Your task to perform on an android device: change notification settings in the gmail app Image 0: 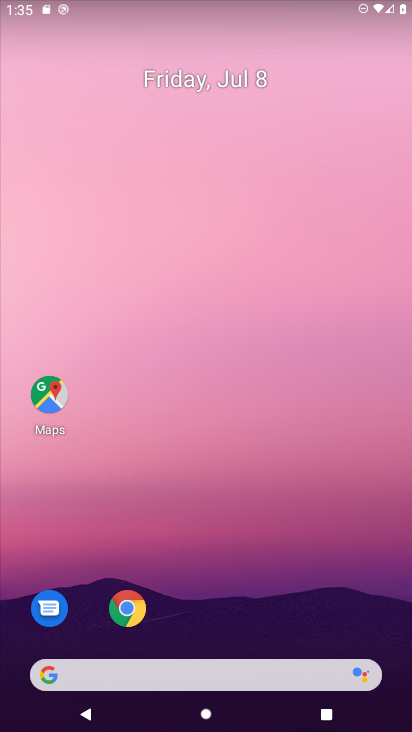
Step 0: drag from (277, 570) to (236, 152)
Your task to perform on an android device: change notification settings in the gmail app Image 1: 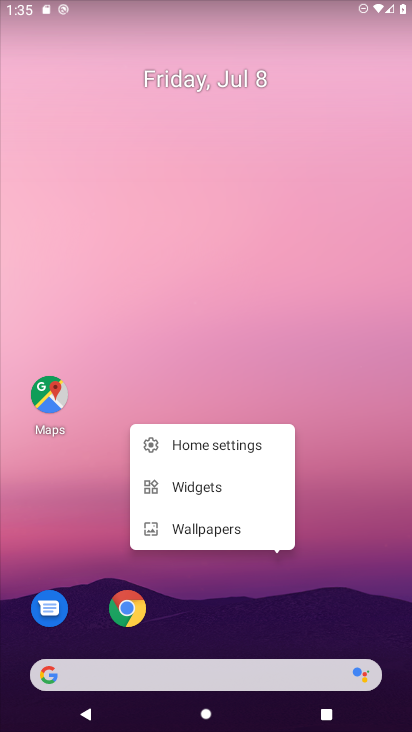
Step 1: click (236, 231)
Your task to perform on an android device: change notification settings in the gmail app Image 2: 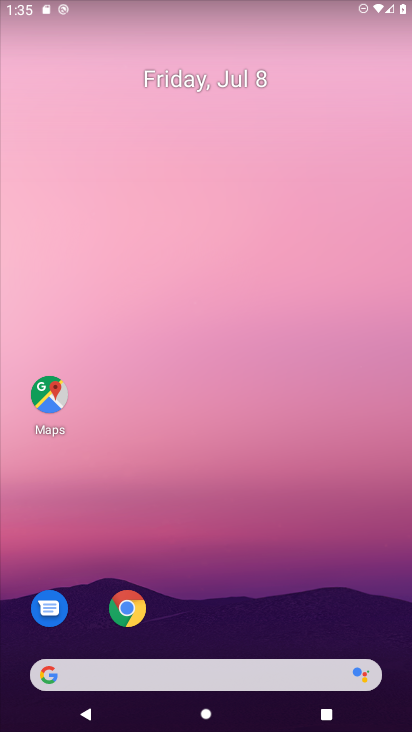
Step 2: click (236, 231)
Your task to perform on an android device: change notification settings in the gmail app Image 3: 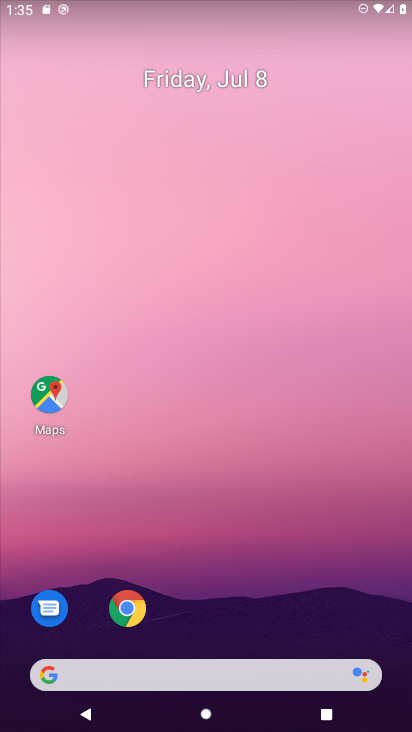
Step 3: drag from (272, 598) to (188, 57)
Your task to perform on an android device: change notification settings in the gmail app Image 4: 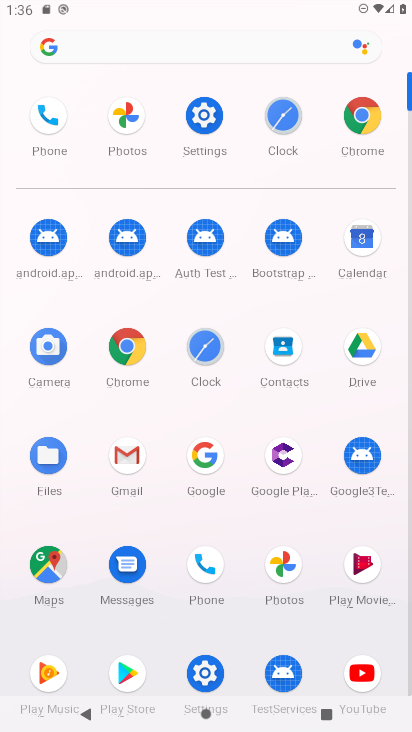
Step 4: click (143, 465)
Your task to perform on an android device: change notification settings in the gmail app Image 5: 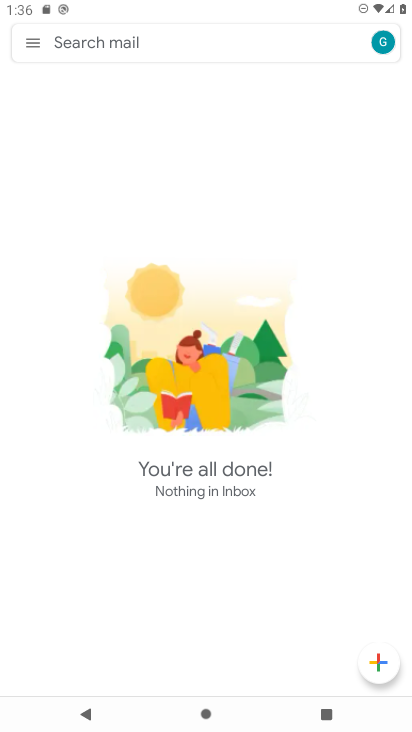
Step 5: click (31, 38)
Your task to perform on an android device: change notification settings in the gmail app Image 6: 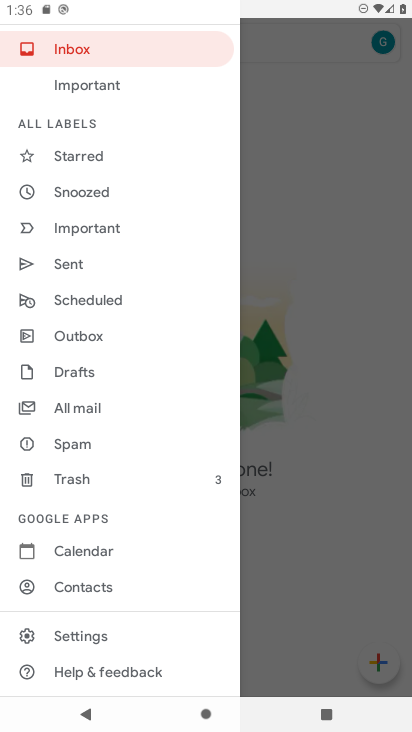
Step 6: click (118, 627)
Your task to perform on an android device: change notification settings in the gmail app Image 7: 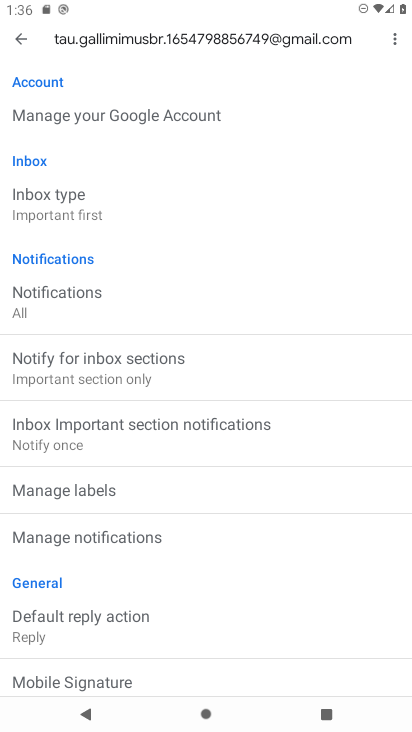
Step 7: task complete